Your task to perform on an android device: Open network settings Image 0: 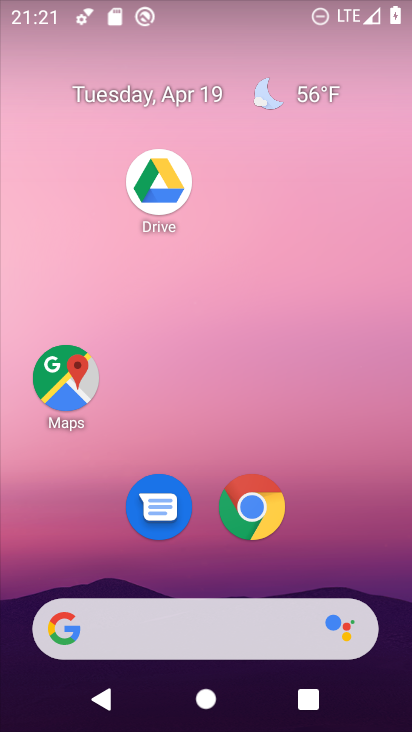
Step 0: drag from (332, 519) to (322, 99)
Your task to perform on an android device: Open network settings Image 1: 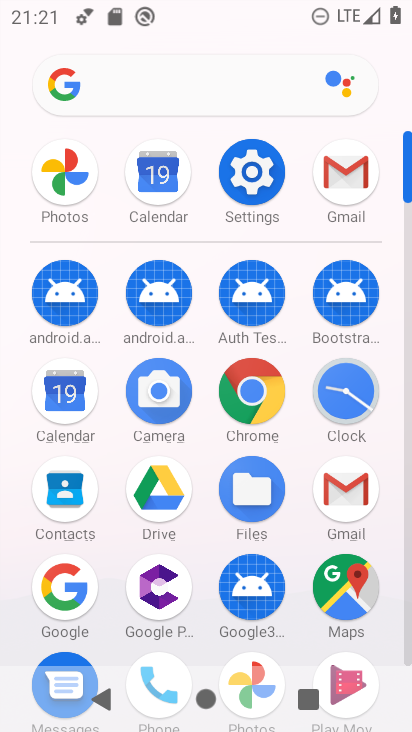
Step 1: click (261, 169)
Your task to perform on an android device: Open network settings Image 2: 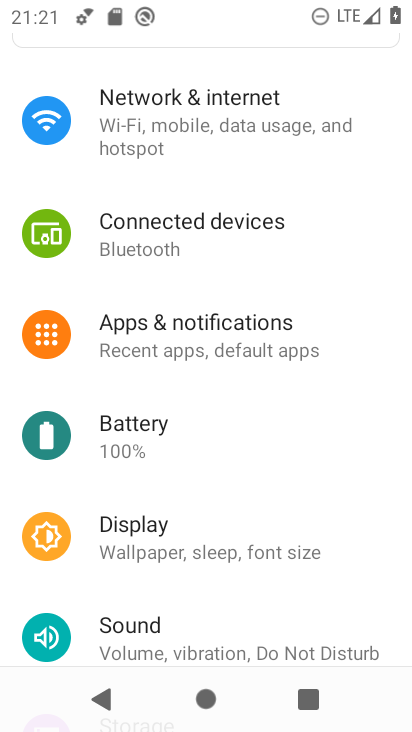
Step 2: click (258, 117)
Your task to perform on an android device: Open network settings Image 3: 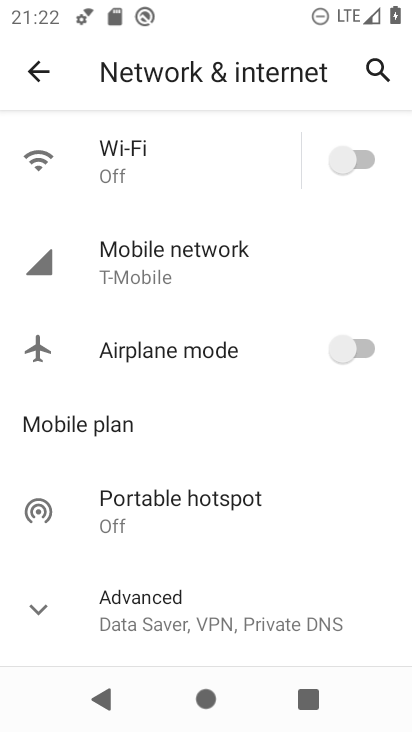
Step 3: task complete